Your task to perform on an android device: change alarm snooze length Image 0: 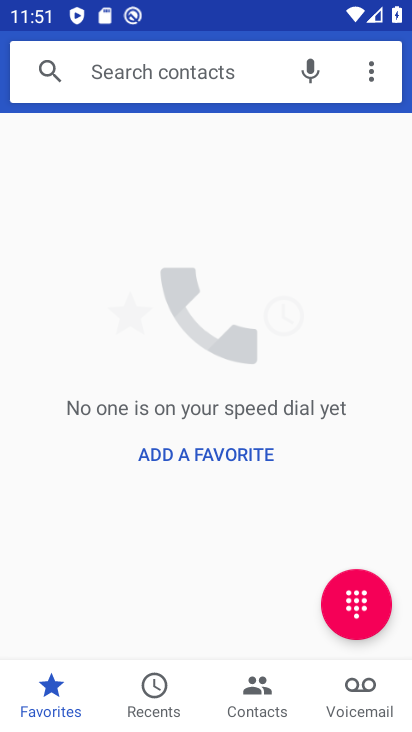
Step 0: press home button
Your task to perform on an android device: change alarm snooze length Image 1: 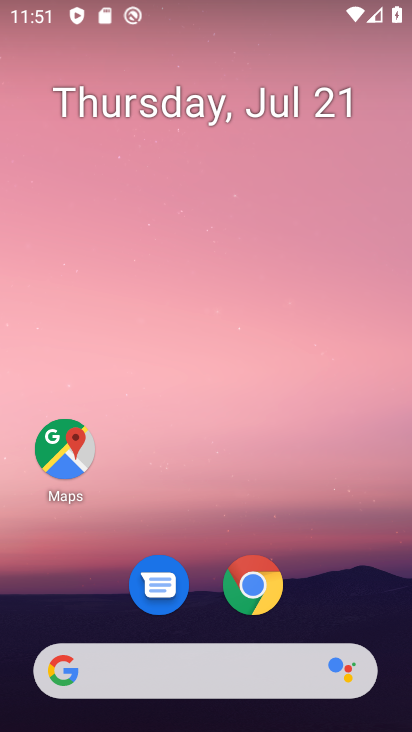
Step 1: drag from (234, 678) to (343, 261)
Your task to perform on an android device: change alarm snooze length Image 2: 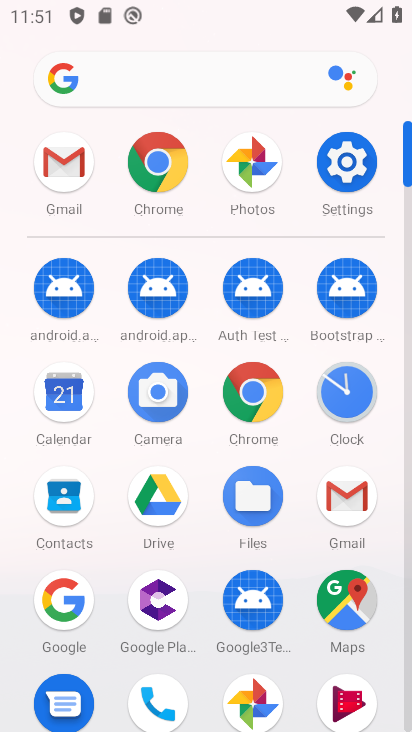
Step 2: click (343, 394)
Your task to perform on an android device: change alarm snooze length Image 3: 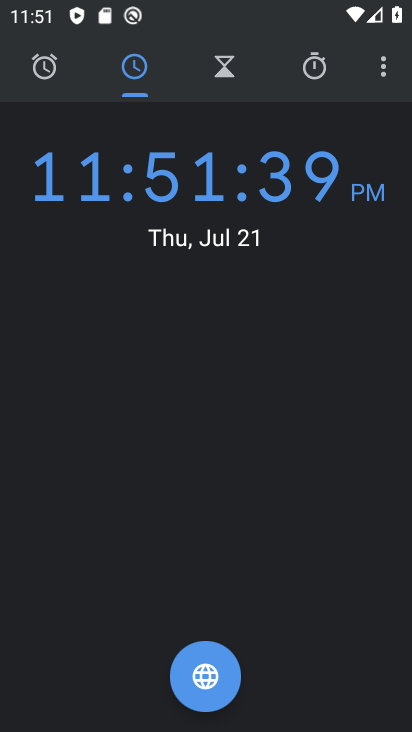
Step 3: click (384, 73)
Your task to perform on an android device: change alarm snooze length Image 4: 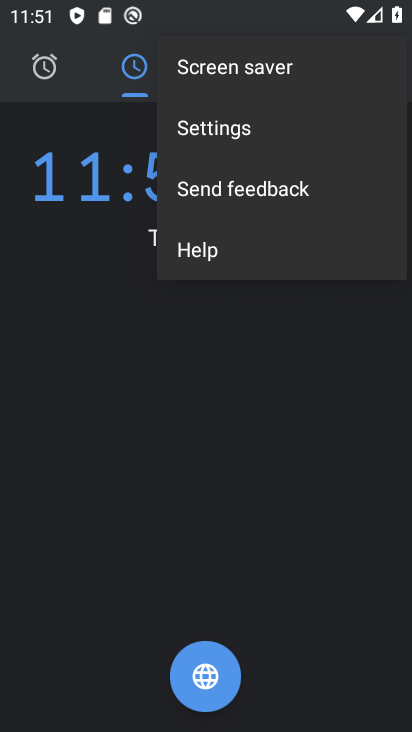
Step 4: click (238, 134)
Your task to perform on an android device: change alarm snooze length Image 5: 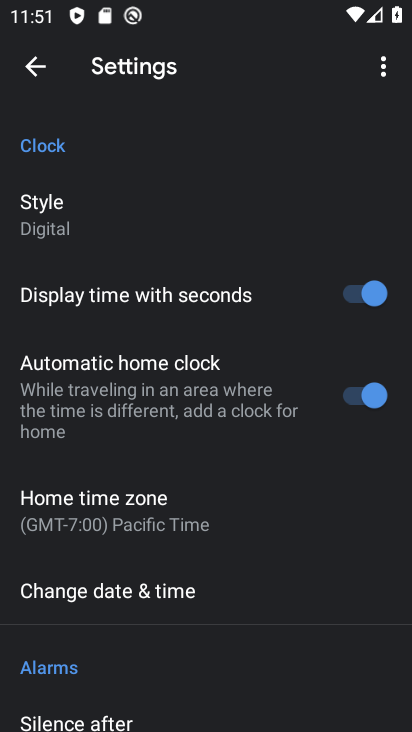
Step 5: drag from (245, 570) to (318, 174)
Your task to perform on an android device: change alarm snooze length Image 6: 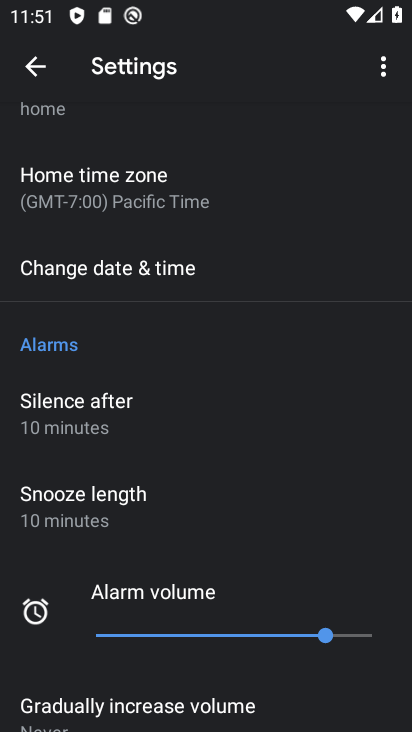
Step 6: click (115, 518)
Your task to perform on an android device: change alarm snooze length Image 7: 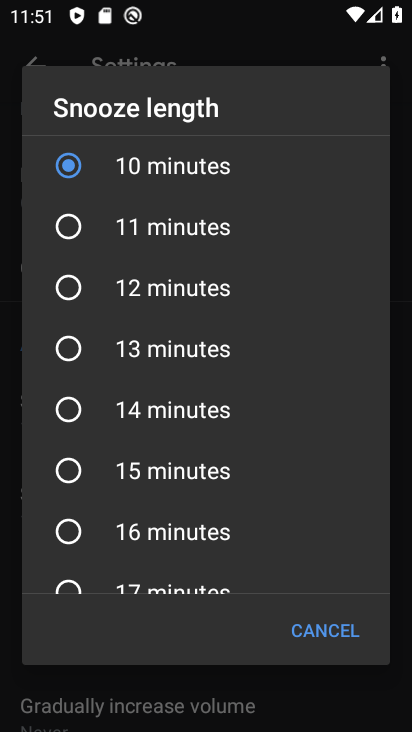
Step 7: click (70, 473)
Your task to perform on an android device: change alarm snooze length Image 8: 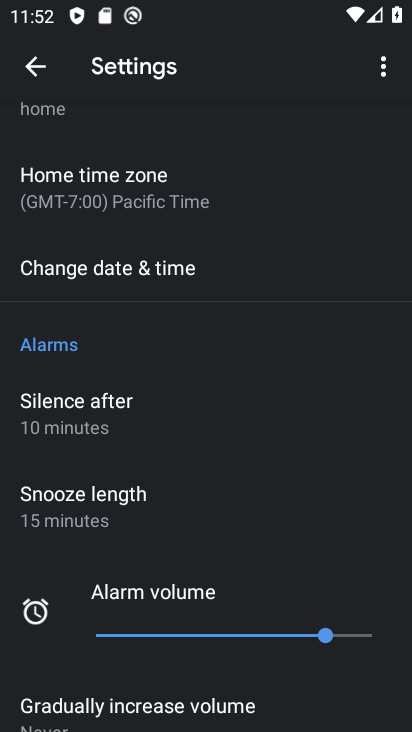
Step 8: task complete